Your task to perform on an android device: Go to settings Image 0: 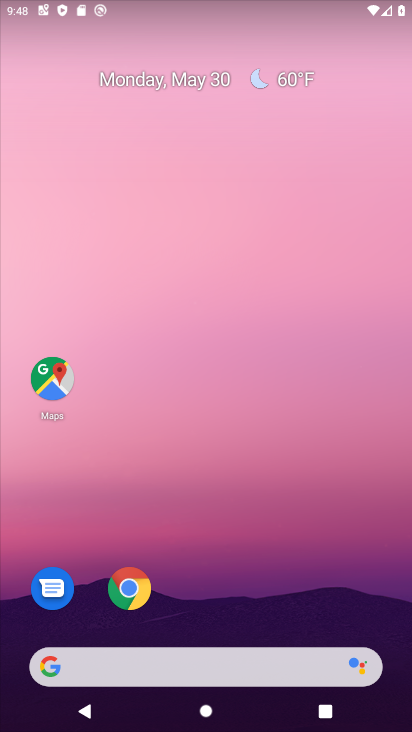
Step 0: drag from (224, 629) to (247, 422)
Your task to perform on an android device: Go to settings Image 1: 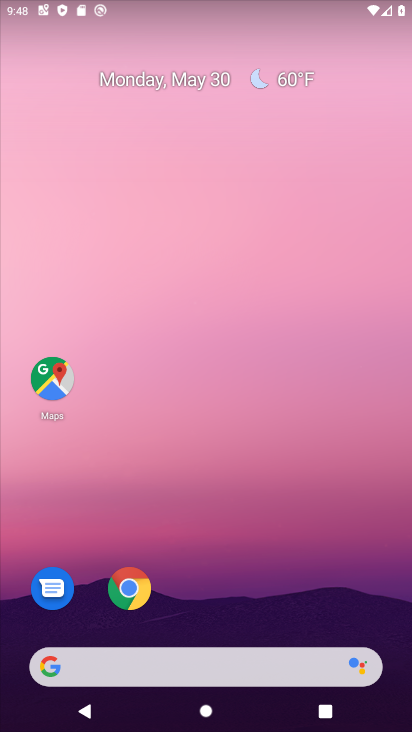
Step 1: drag from (208, 613) to (240, 0)
Your task to perform on an android device: Go to settings Image 2: 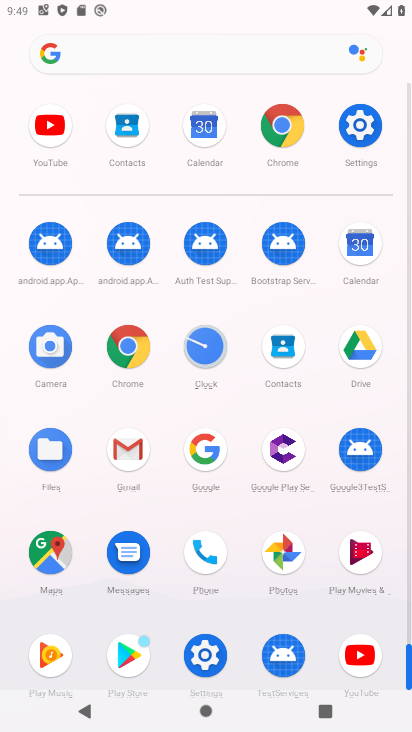
Step 2: click (367, 179)
Your task to perform on an android device: Go to settings Image 3: 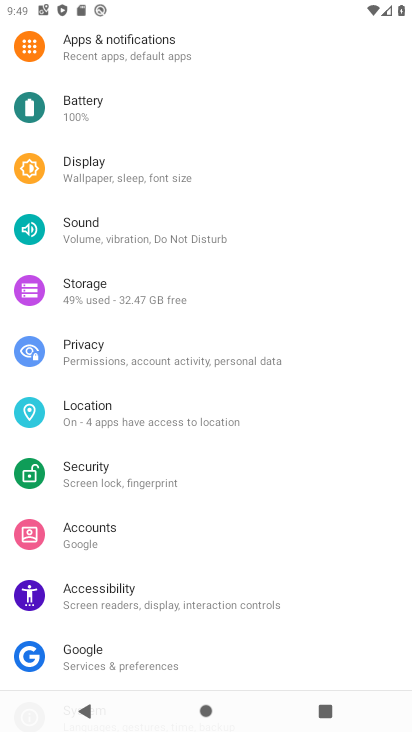
Step 3: task complete